Your task to perform on an android device: Search for vegetarian restaurants on Maps Image 0: 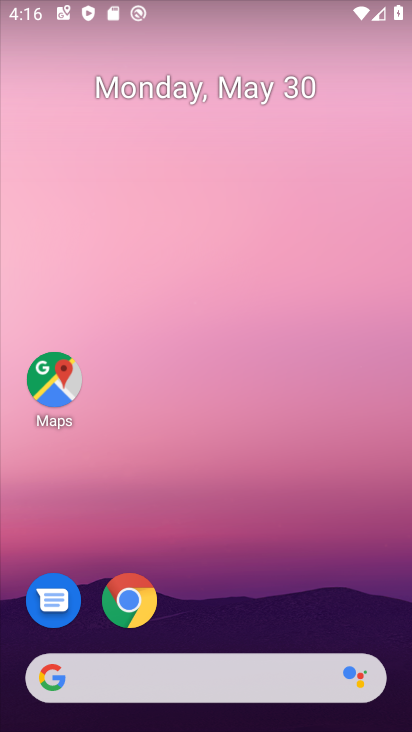
Step 0: press home button
Your task to perform on an android device: Search for vegetarian restaurants on Maps Image 1: 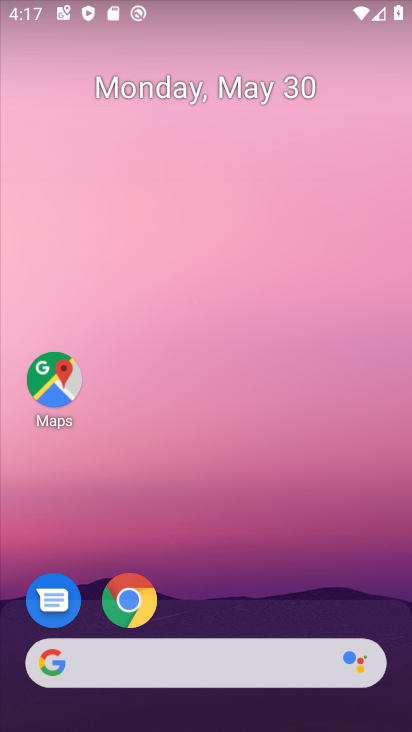
Step 1: click (57, 377)
Your task to perform on an android device: Search for vegetarian restaurants on Maps Image 2: 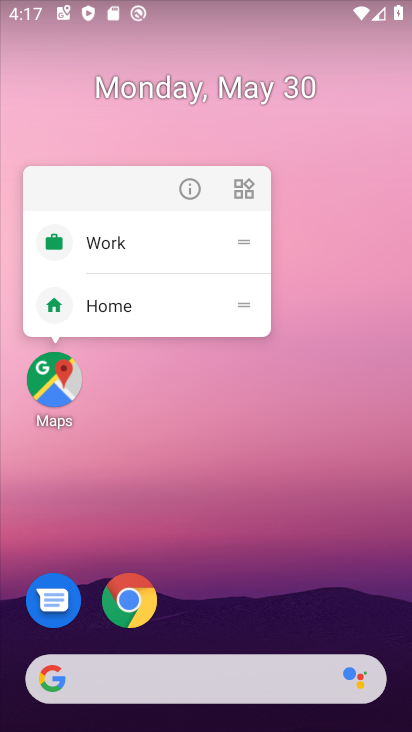
Step 2: click (56, 378)
Your task to perform on an android device: Search for vegetarian restaurants on Maps Image 3: 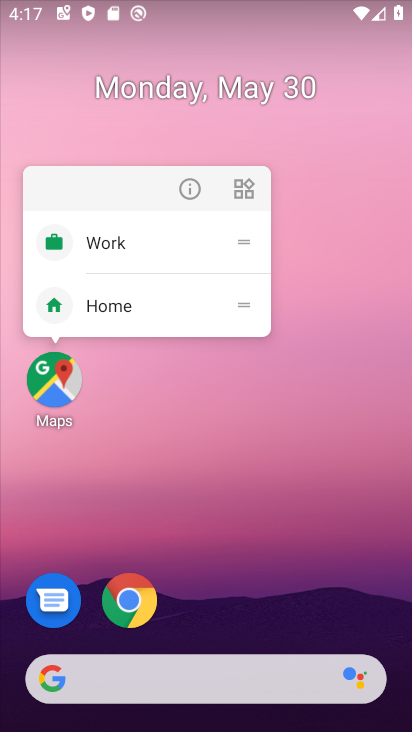
Step 3: click (39, 375)
Your task to perform on an android device: Search for vegetarian restaurants on Maps Image 4: 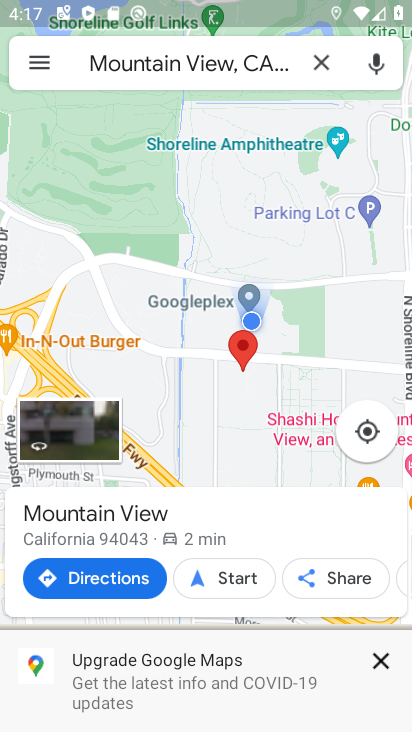
Step 4: click (316, 63)
Your task to perform on an android device: Search for vegetarian restaurants on Maps Image 5: 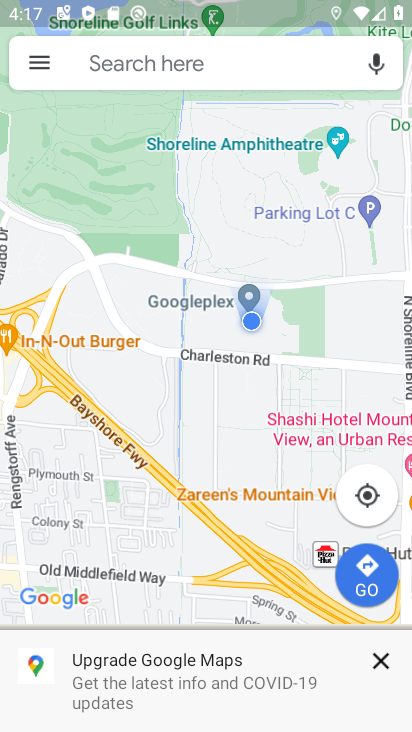
Step 5: click (158, 61)
Your task to perform on an android device: Search for vegetarian restaurants on Maps Image 6: 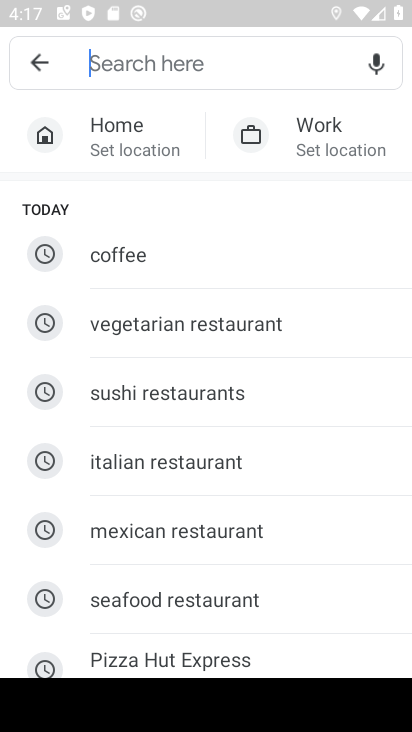
Step 6: click (113, 324)
Your task to perform on an android device: Search for vegetarian restaurants on Maps Image 7: 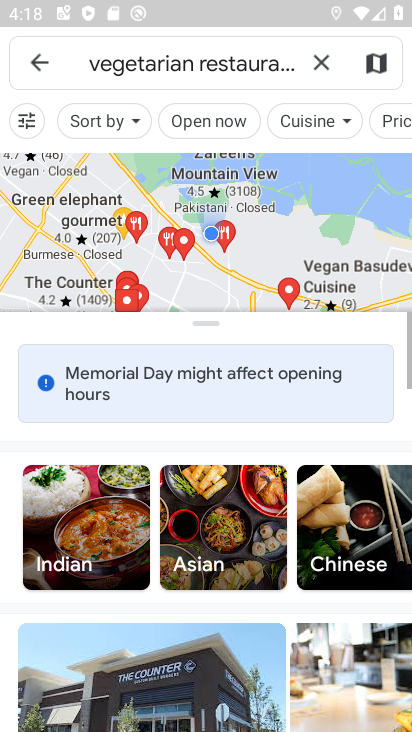
Step 7: task complete